Your task to perform on an android device: What's the weather? Image 0: 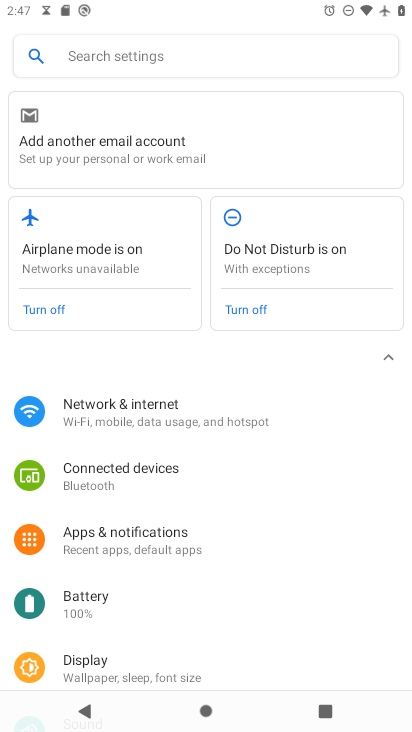
Step 0: press home button
Your task to perform on an android device: What's the weather? Image 1: 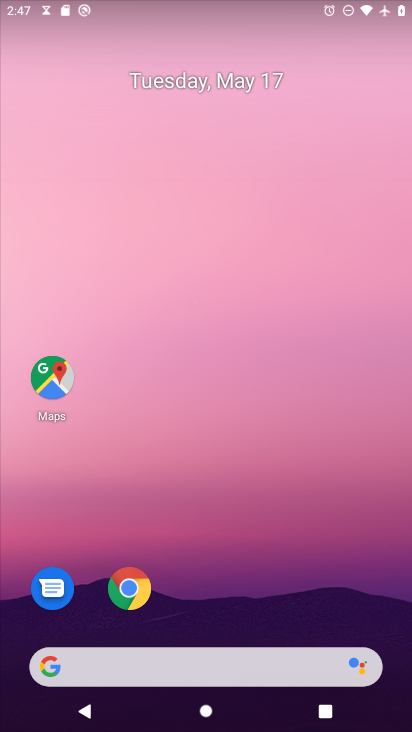
Step 1: click (123, 597)
Your task to perform on an android device: What's the weather? Image 2: 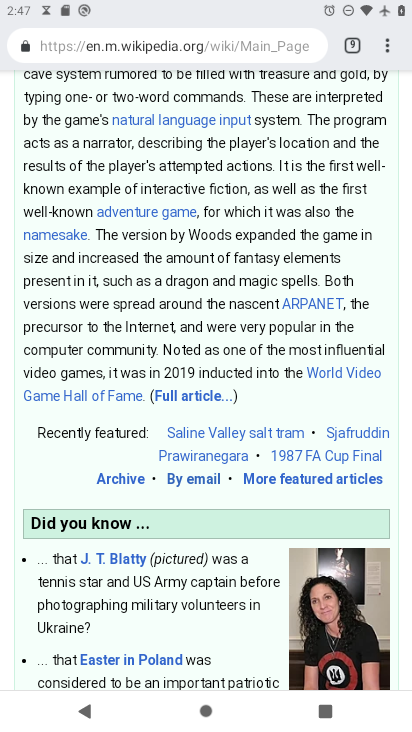
Step 2: drag from (257, 205) to (256, 478)
Your task to perform on an android device: What's the weather? Image 3: 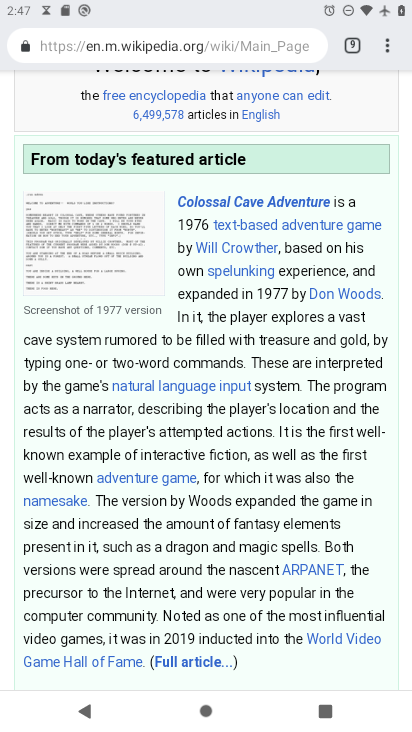
Step 3: click (351, 46)
Your task to perform on an android device: What's the weather? Image 4: 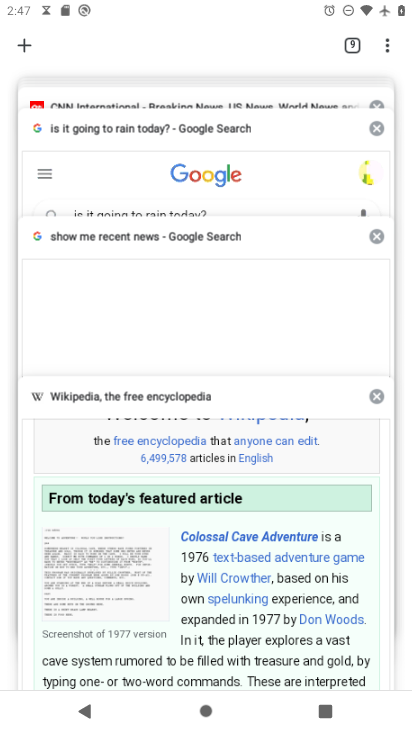
Step 4: drag from (168, 156) to (165, 532)
Your task to perform on an android device: What's the weather? Image 5: 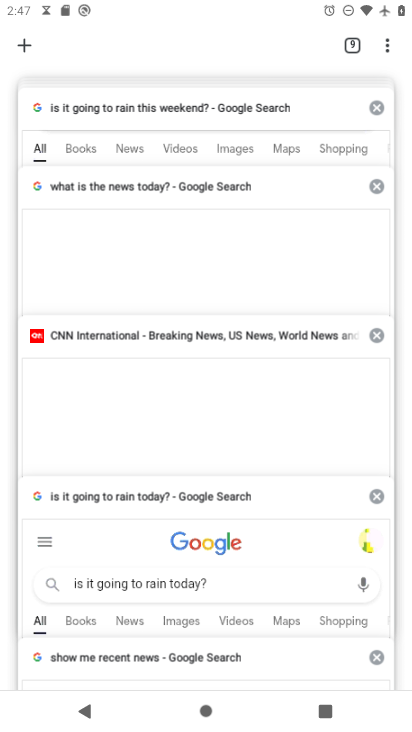
Step 5: drag from (151, 172) to (161, 522)
Your task to perform on an android device: What's the weather? Image 6: 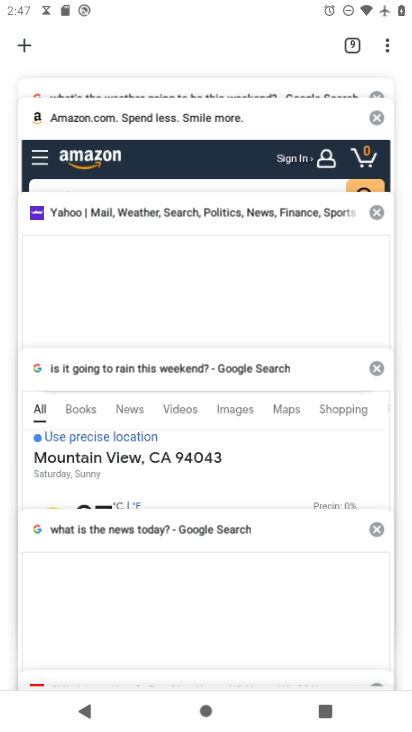
Step 6: drag from (183, 190) to (171, 428)
Your task to perform on an android device: What's the weather? Image 7: 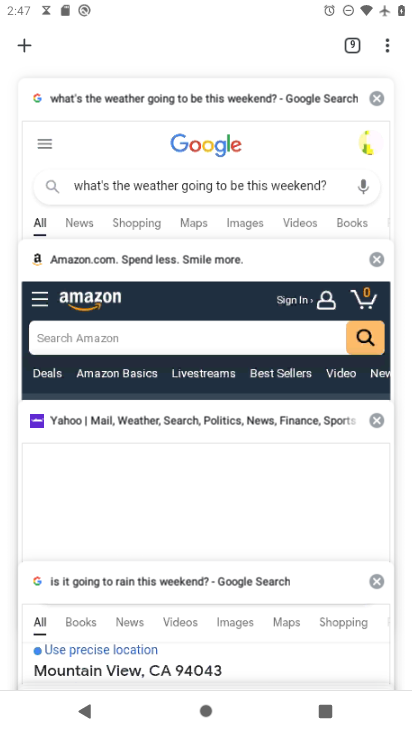
Step 7: click (29, 49)
Your task to perform on an android device: What's the weather? Image 8: 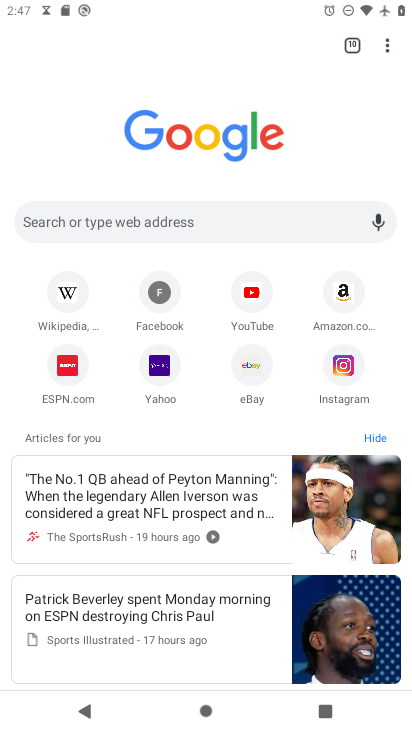
Step 8: click (187, 216)
Your task to perform on an android device: What's the weather? Image 9: 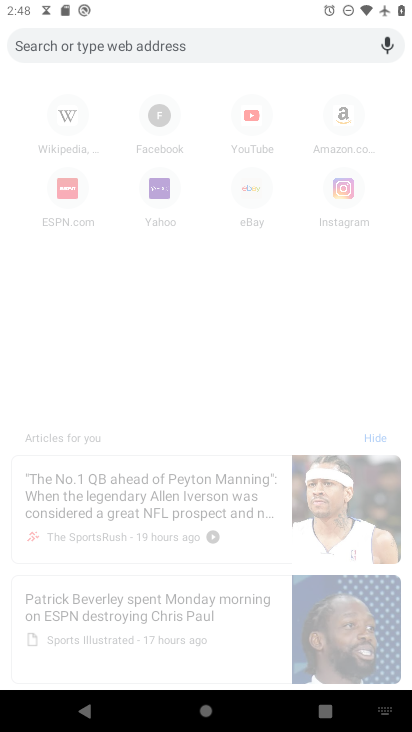
Step 9: type "what's the weather?"
Your task to perform on an android device: What's the weather? Image 10: 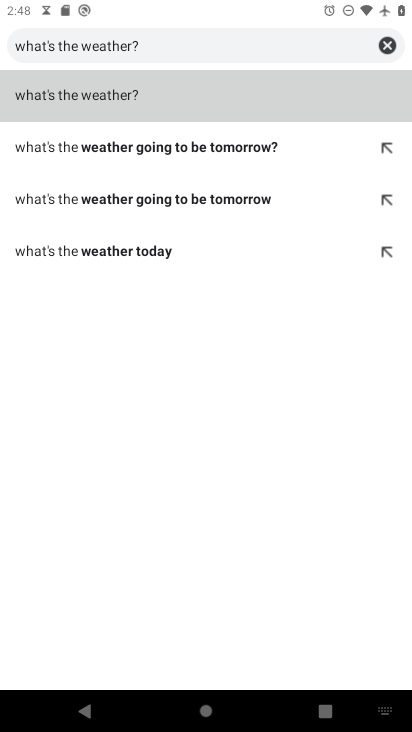
Step 10: click (128, 88)
Your task to perform on an android device: What's the weather? Image 11: 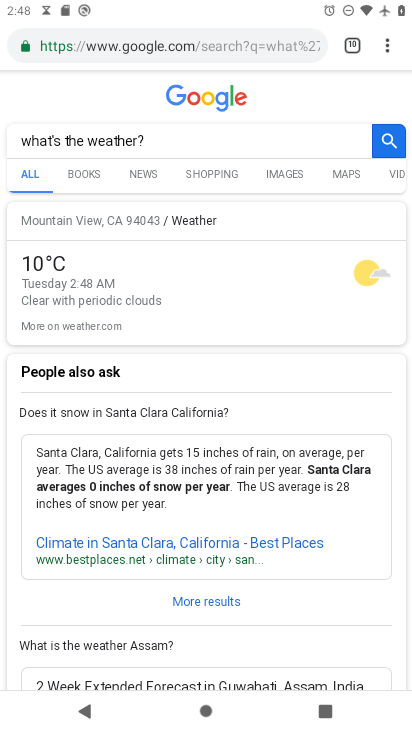
Step 11: task complete